Your task to perform on an android device: What's the weather going to be tomorrow? Image 0: 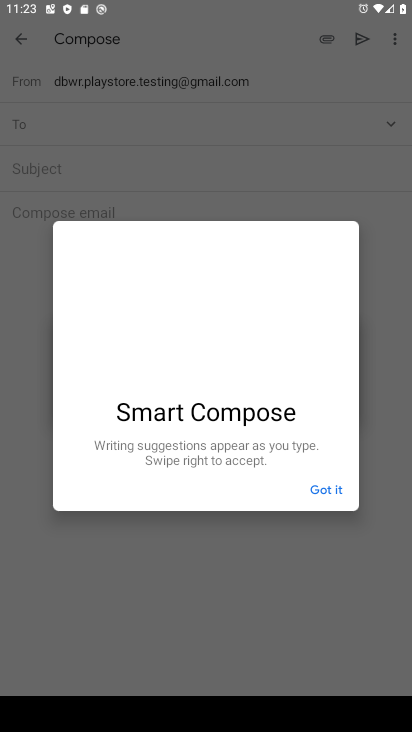
Step 0: press home button
Your task to perform on an android device: What's the weather going to be tomorrow? Image 1: 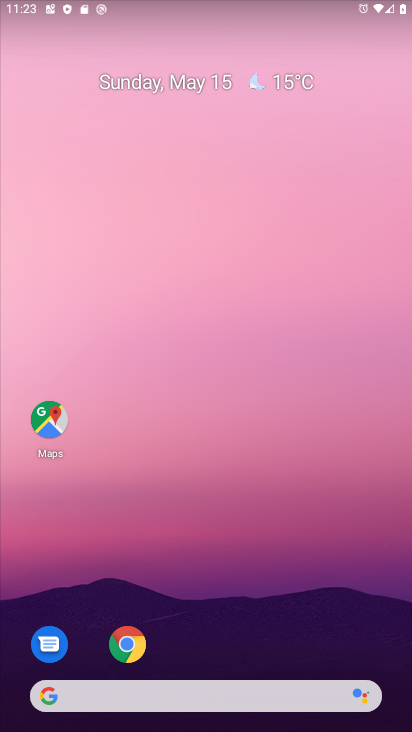
Step 1: click (143, 101)
Your task to perform on an android device: What's the weather going to be tomorrow? Image 2: 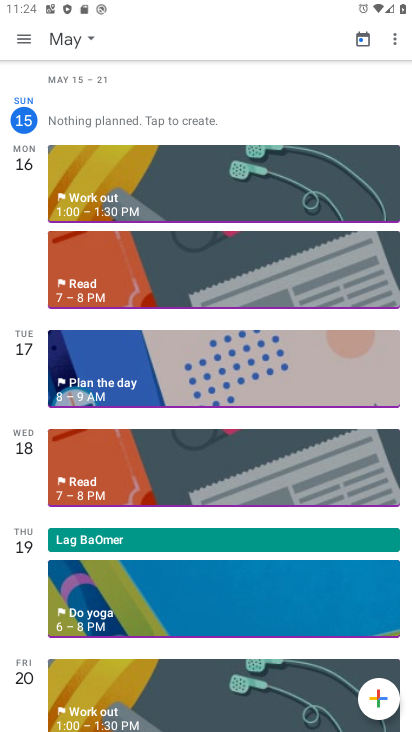
Step 2: press home button
Your task to perform on an android device: What's the weather going to be tomorrow? Image 3: 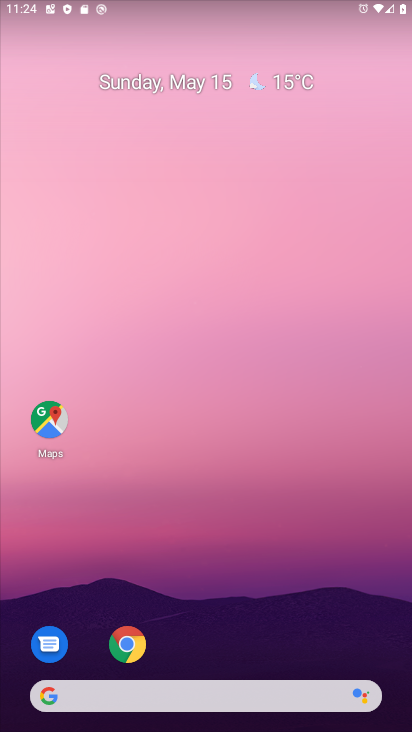
Step 3: click (292, 86)
Your task to perform on an android device: What's the weather going to be tomorrow? Image 4: 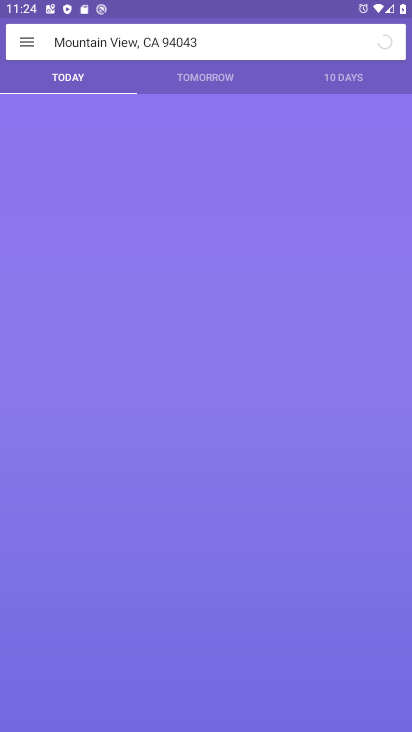
Step 4: click (204, 72)
Your task to perform on an android device: What's the weather going to be tomorrow? Image 5: 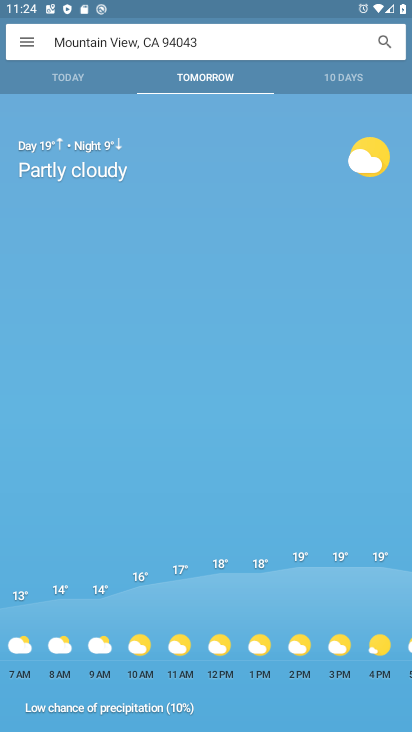
Step 5: task complete